Your task to perform on an android device: Go to wifi settings Image 0: 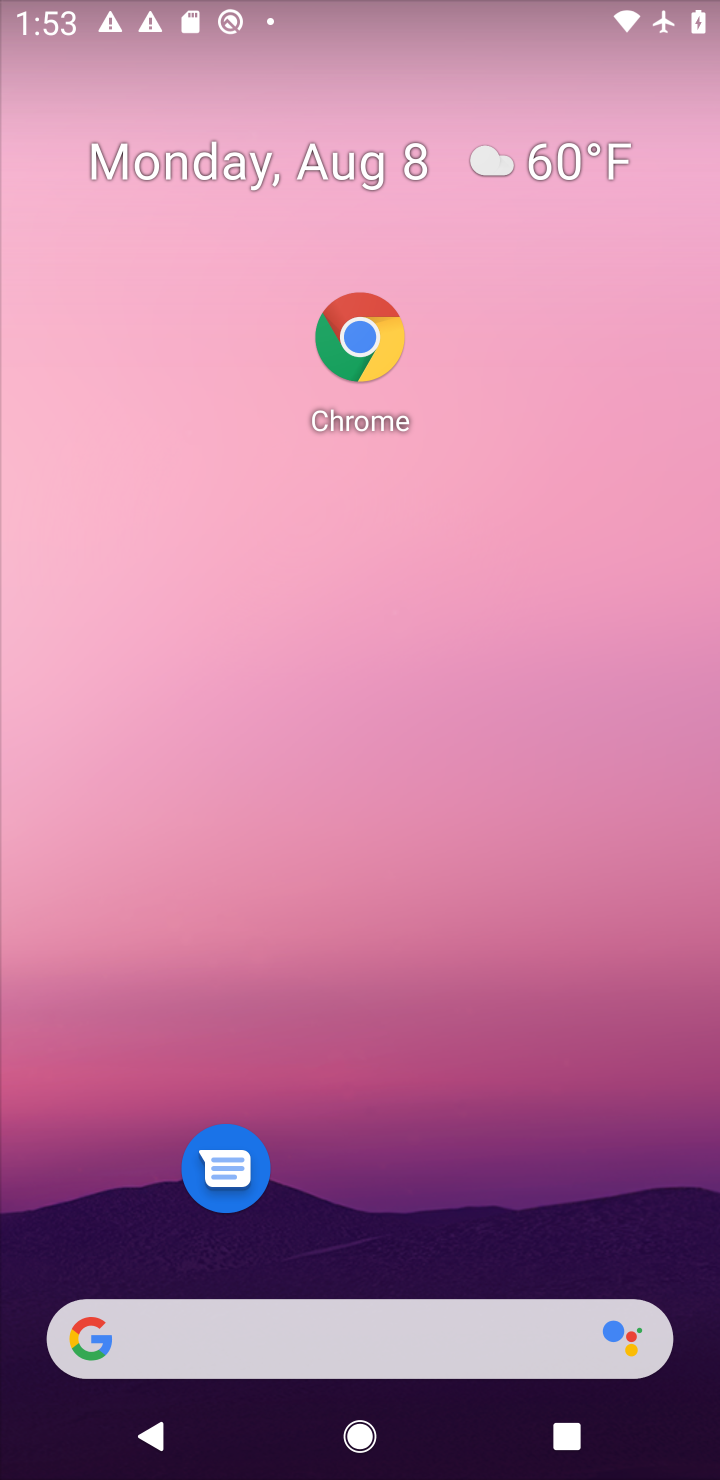
Step 0: drag from (412, 1298) to (249, 328)
Your task to perform on an android device: Go to wifi settings Image 1: 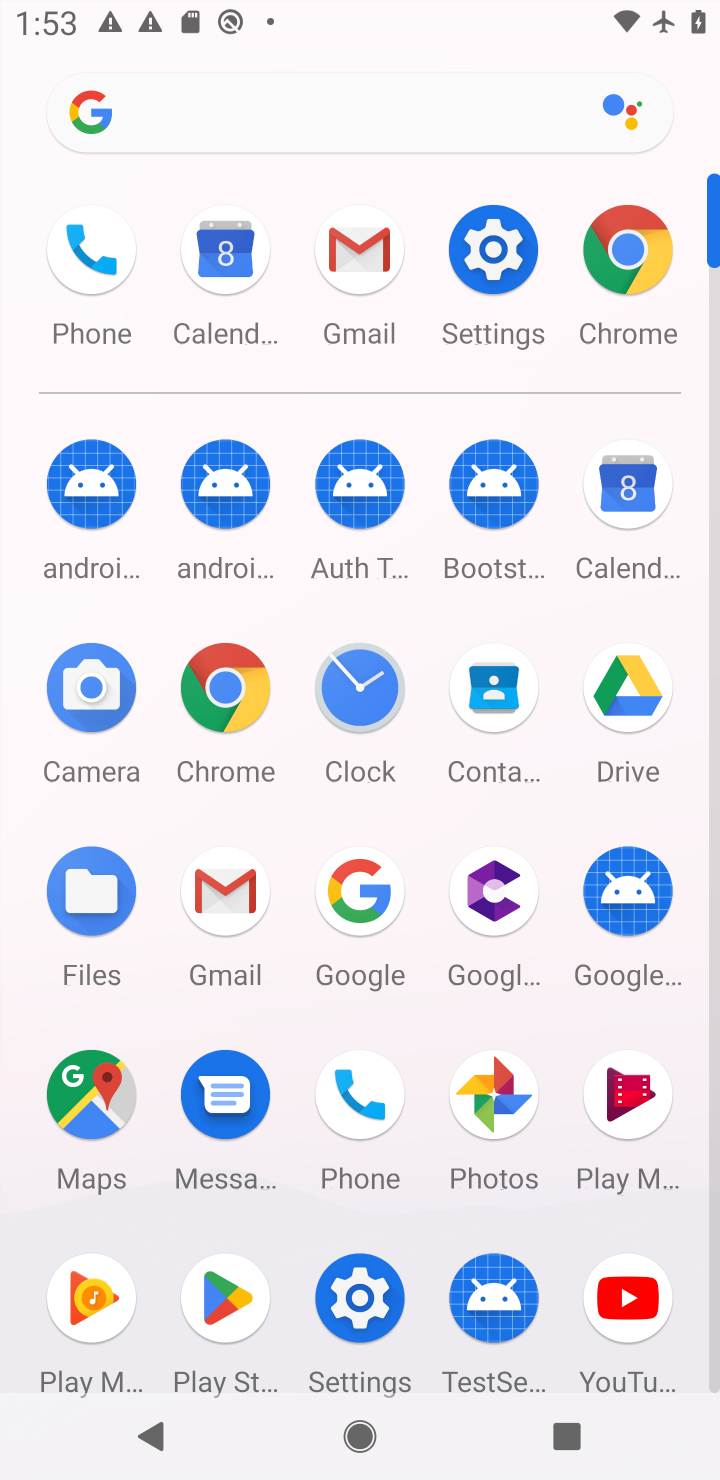
Step 1: click (445, 298)
Your task to perform on an android device: Go to wifi settings Image 2: 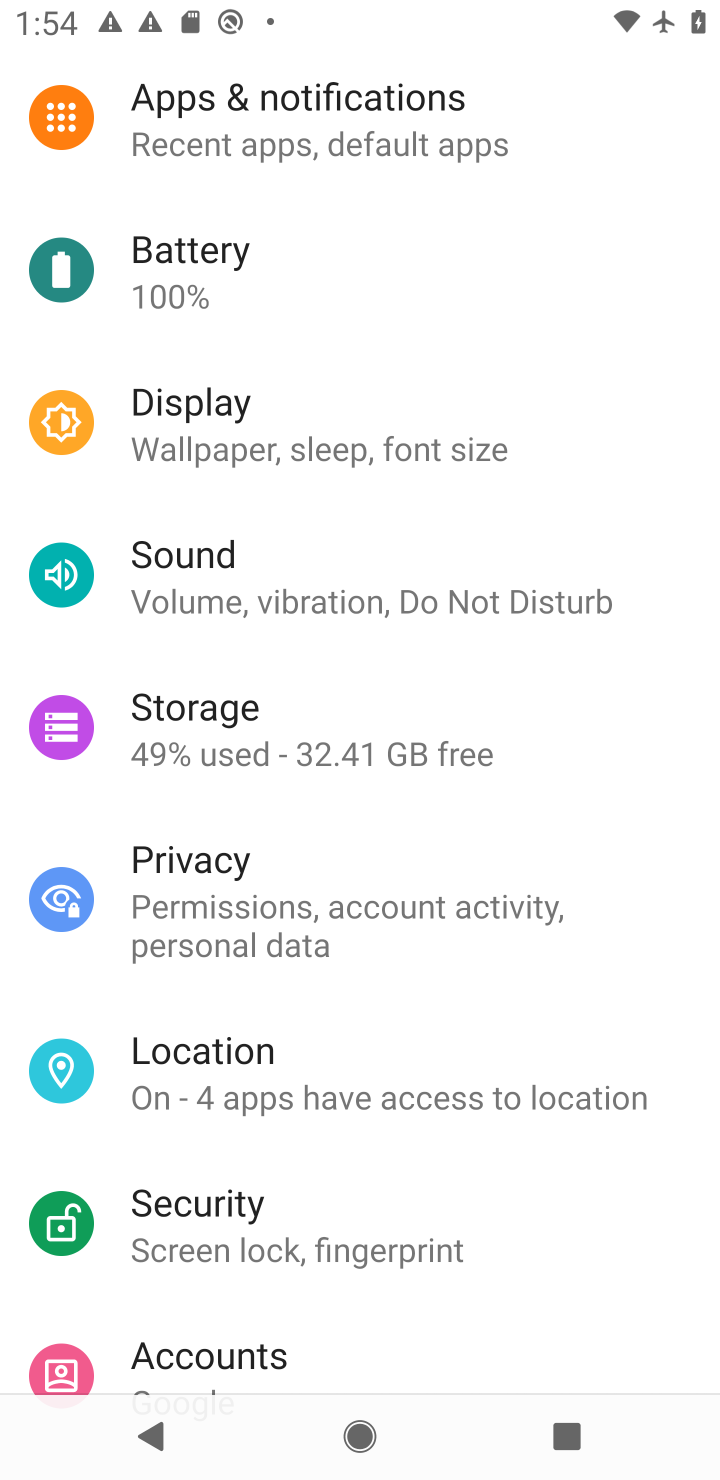
Step 2: drag from (445, 298) to (511, 1471)
Your task to perform on an android device: Go to wifi settings Image 3: 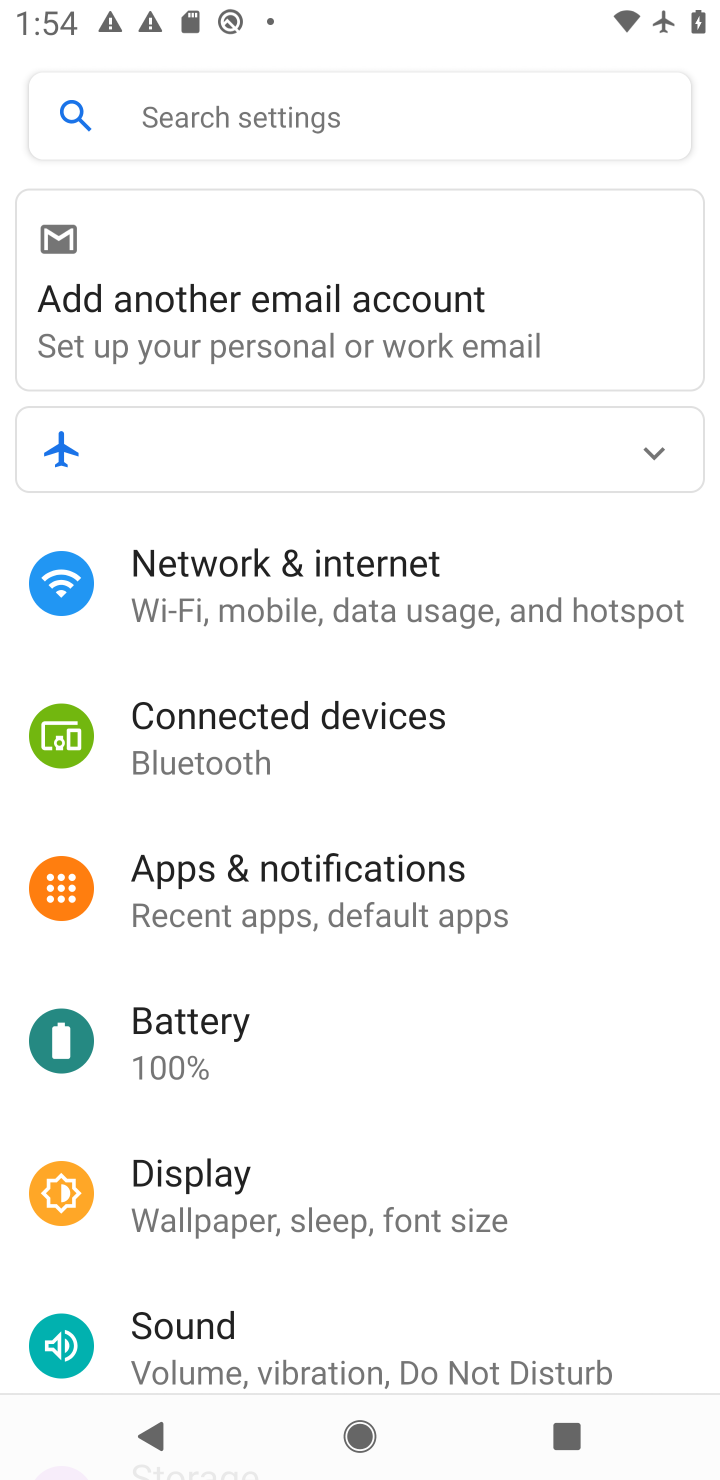
Step 3: click (401, 572)
Your task to perform on an android device: Go to wifi settings Image 4: 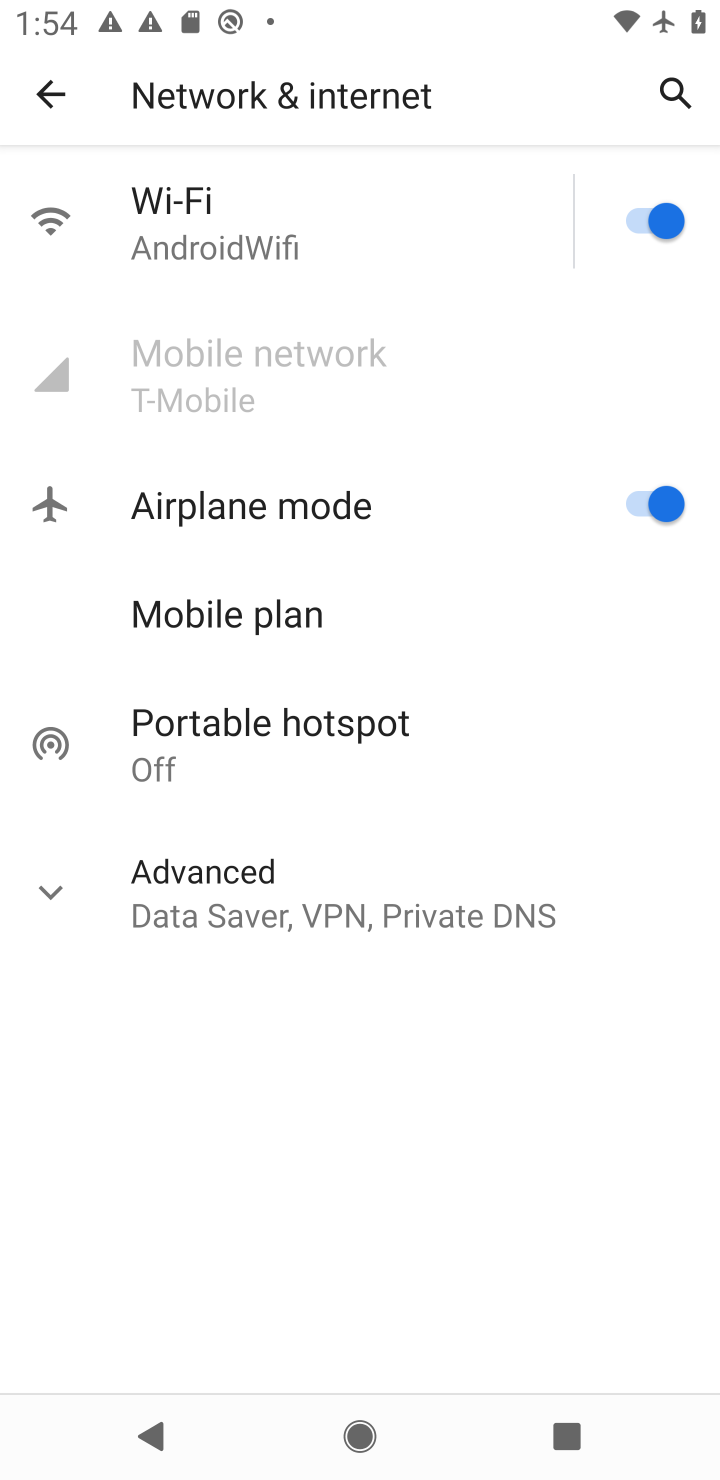
Step 4: click (398, 249)
Your task to perform on an android device: Go to wifi settings Image 5: 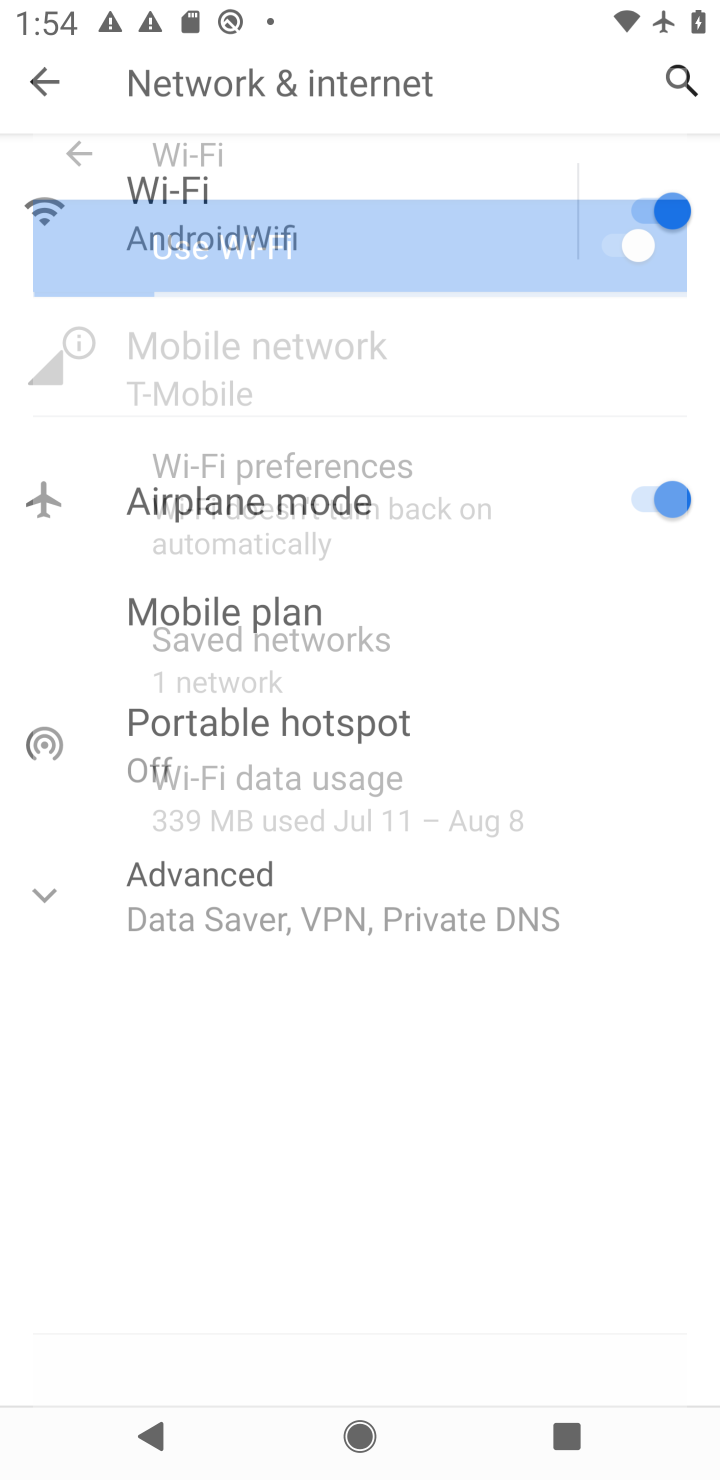
Step 5: task complete